Your task to perform on an android device: open app "Google Play services" (install if not already installed) Image 0: 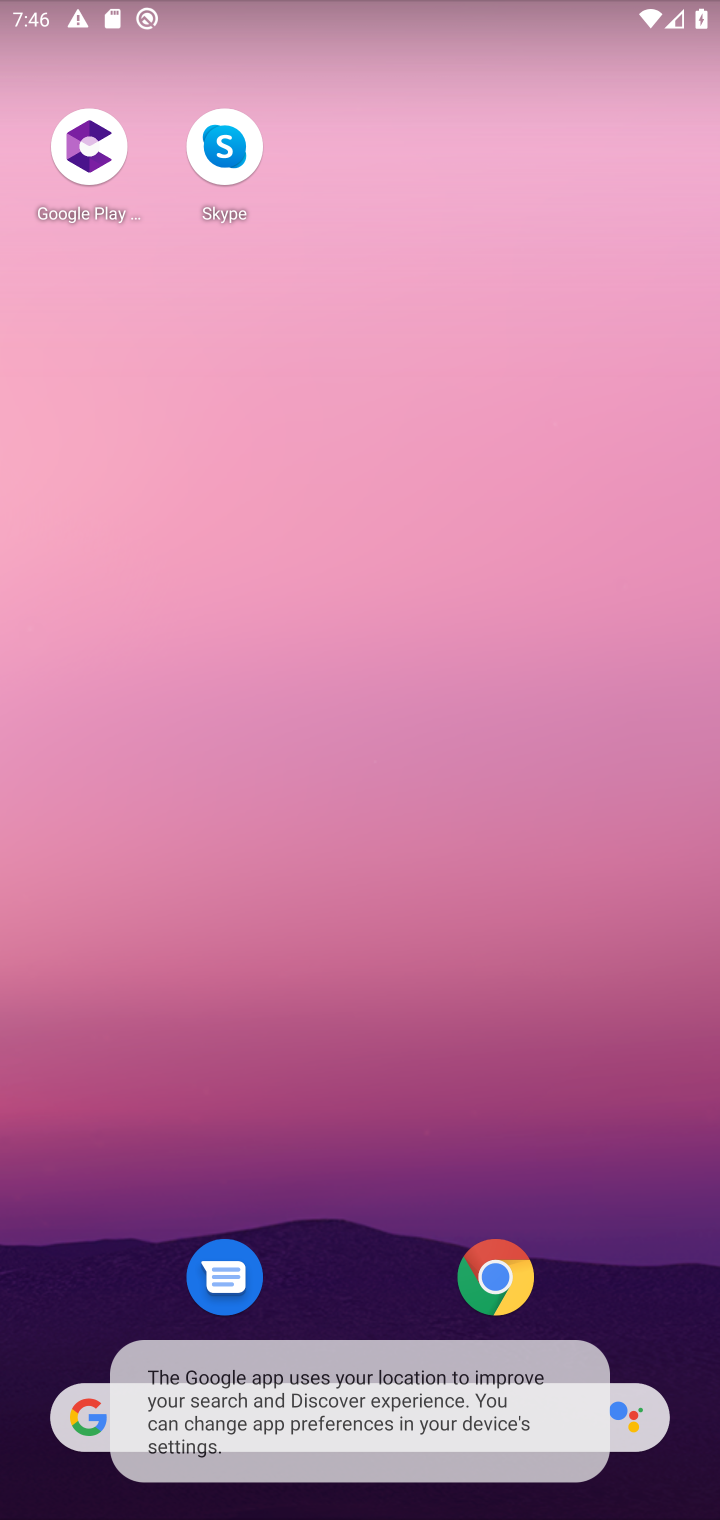
Step 0: drag from (544, 641) to (520, 166)
Your task to perform on an android device: open app "Google Play services" (install if not already installed) Image 1: 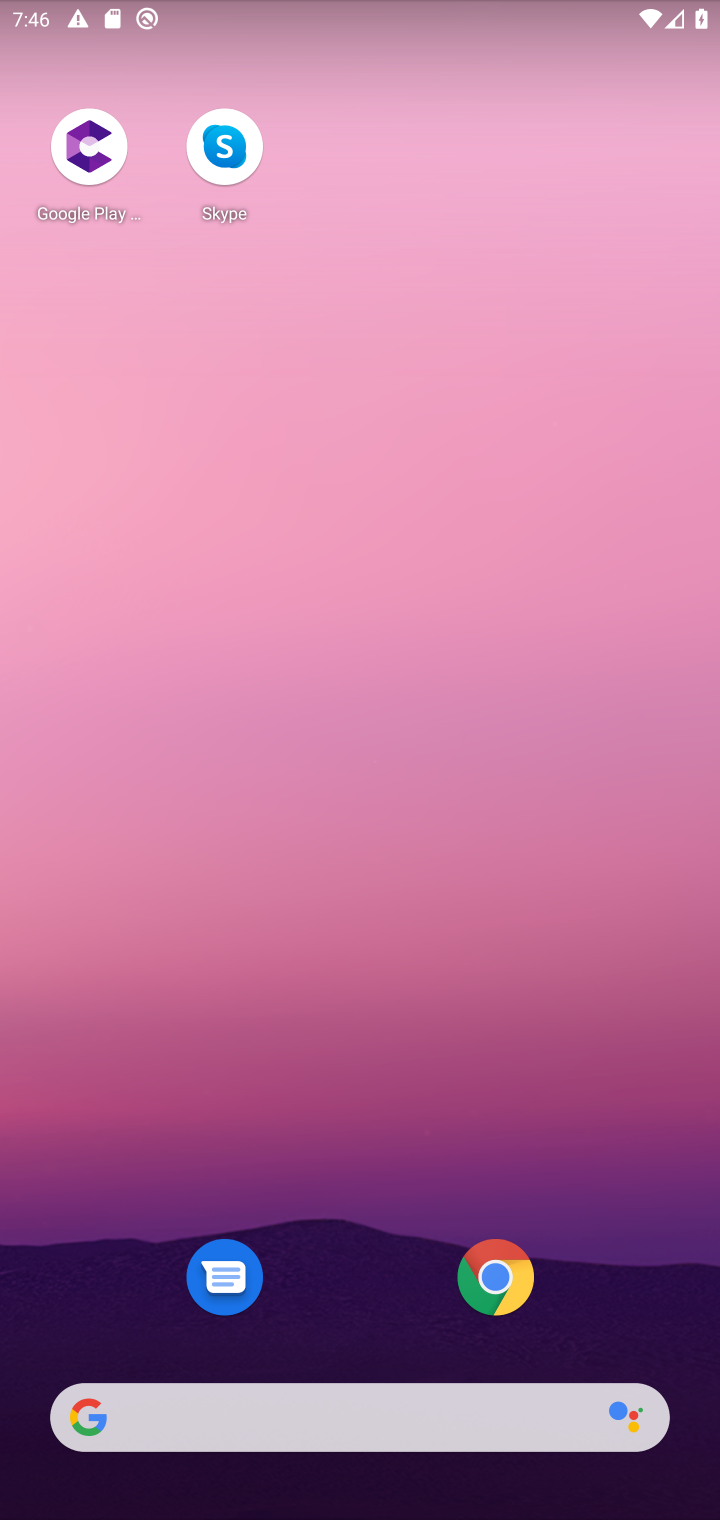
Step 1: drag from (558, 1242) to (456, 0)
Your task to perform on an android device: open app "Google Play services" (install if not already installed) Image 2: 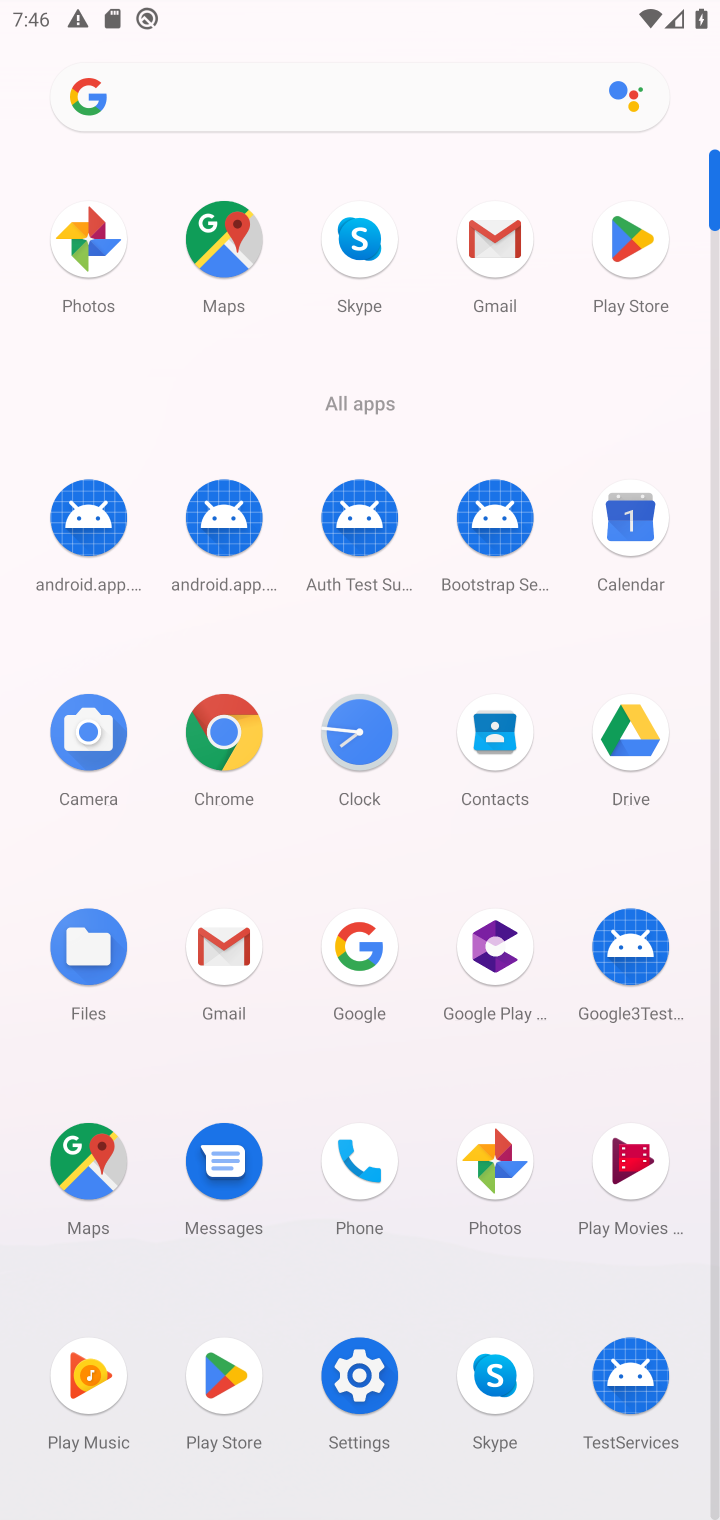
Step 2: drag from (455, 909) to (401, 760)
Your task to perform on an android device: open app "Google Play services" (install if not already installed) Image 3: 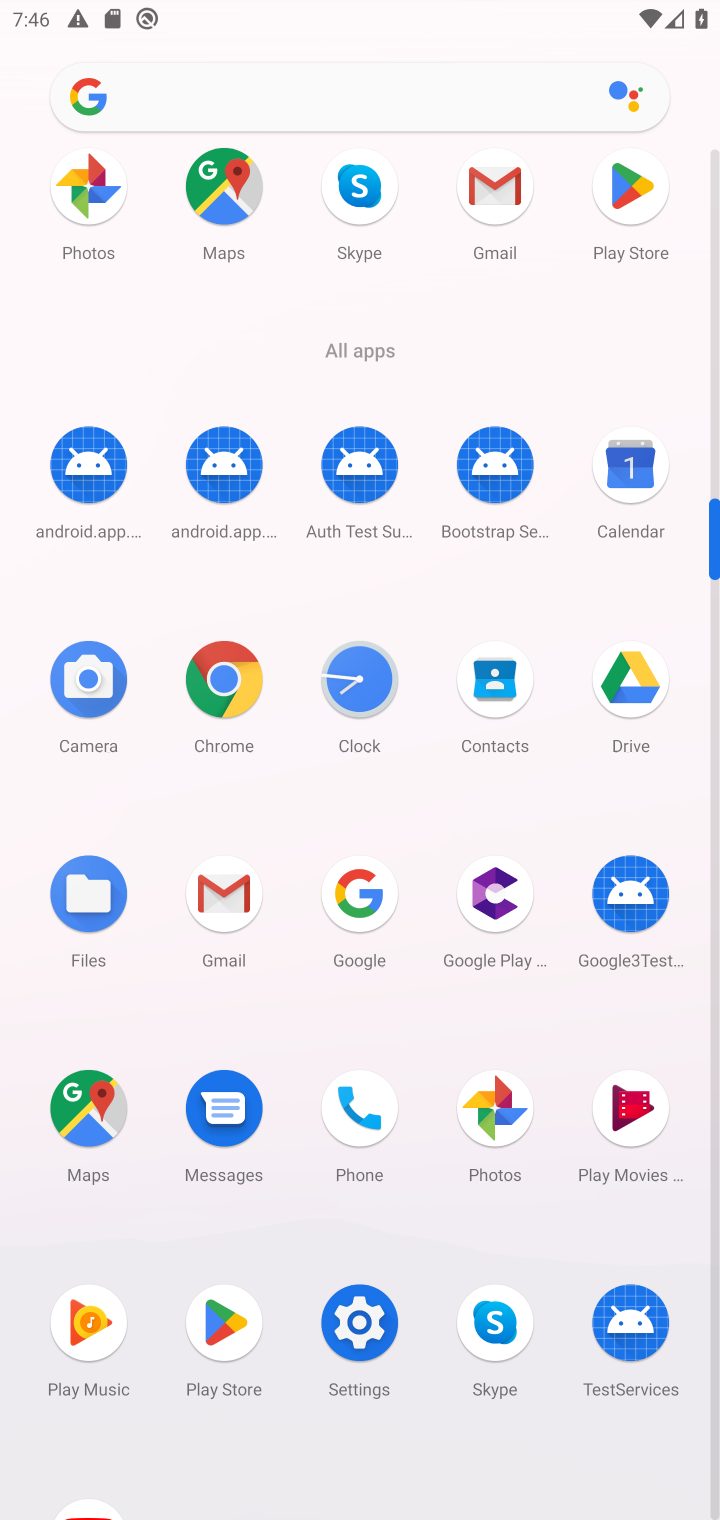
Step 3: click (234, 1342)
Your task to perform on an android device: open app "Google Play services" (install if not already installed) Image 4: 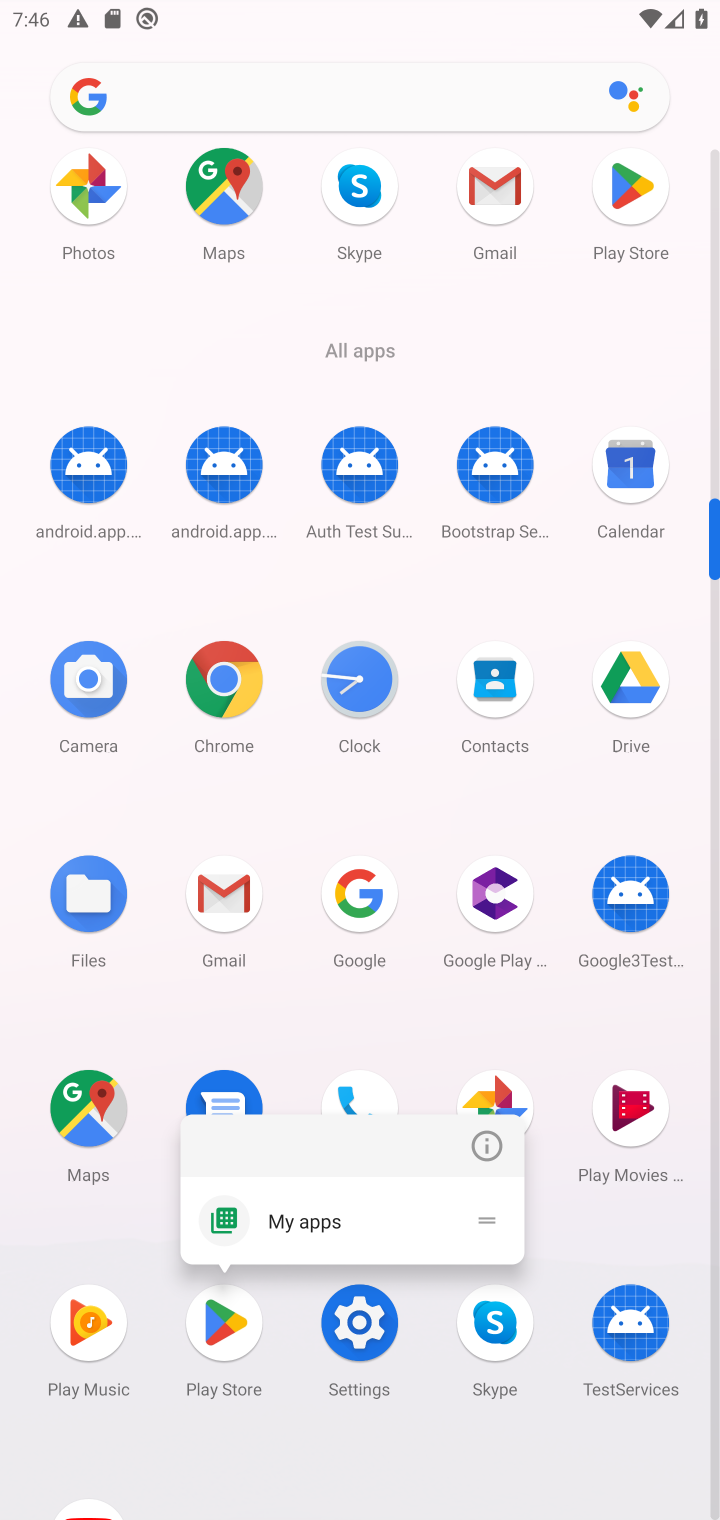
Step 4: click (174, 1358)
Your task to perform on an android device: open app "Google Play services" (install if not already installed) Image 5: 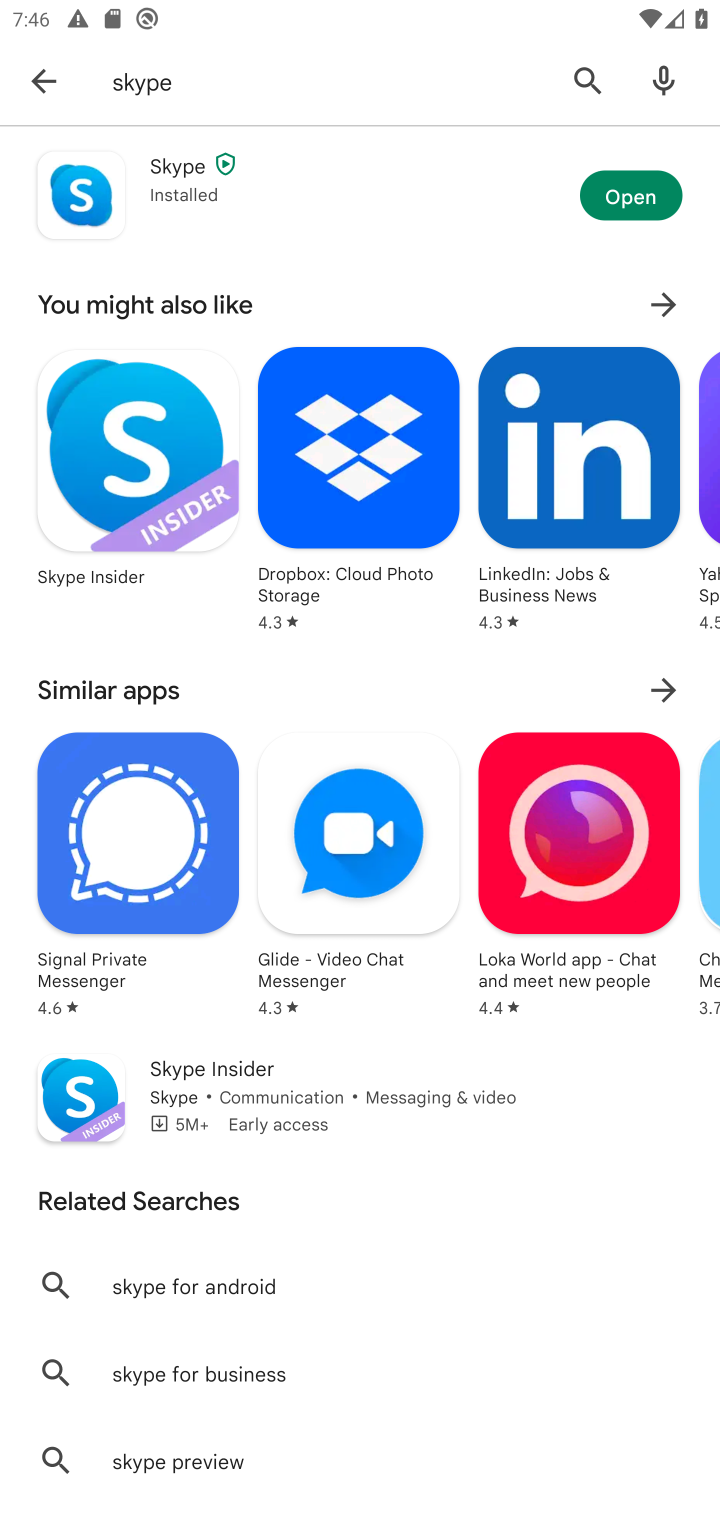
Step 5: click (279, 81)
Your task to perform on an android device: open app "Google Play services" (install if not already installed) Image 6: 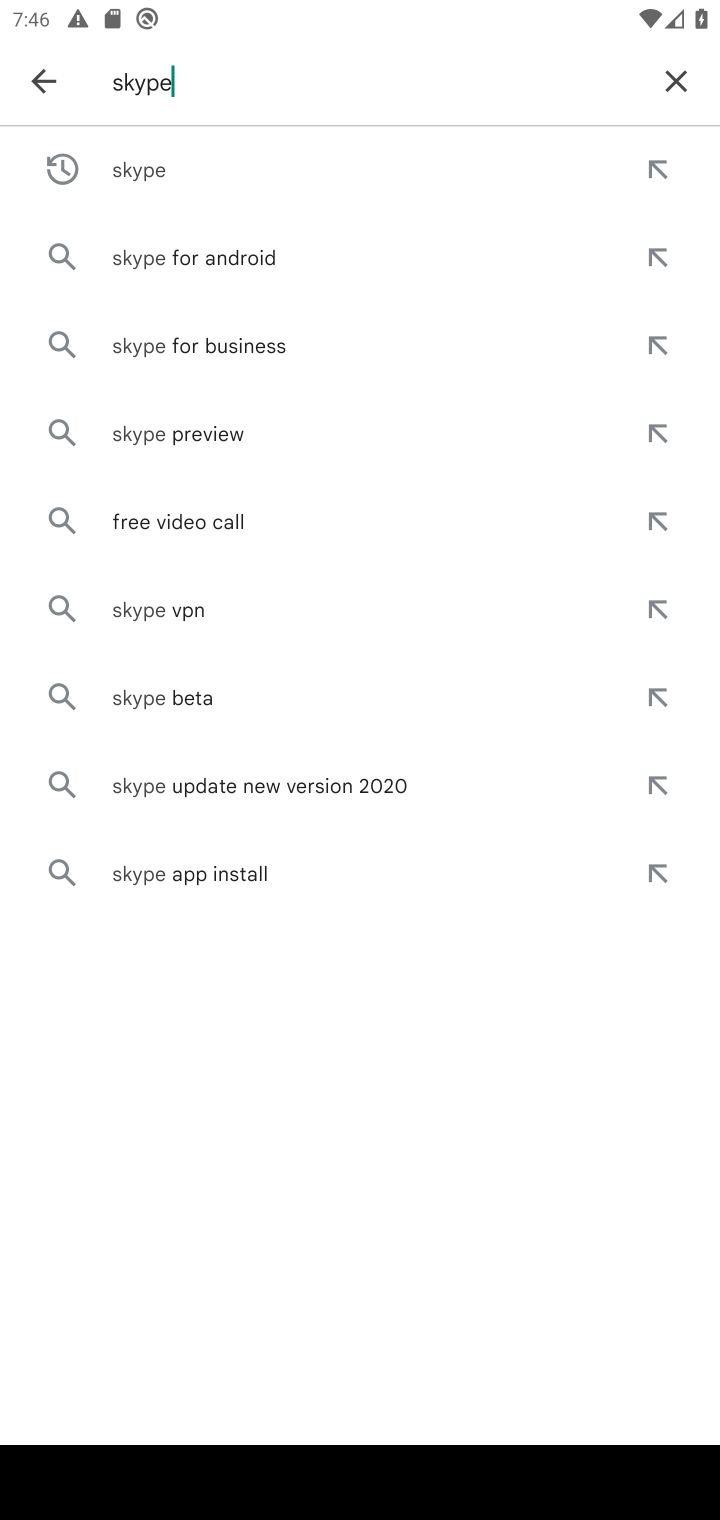
Step 6: click (680, 64)
Your task to perform on an android device: open app "Google Play services" (install if not already installed) Image 7: 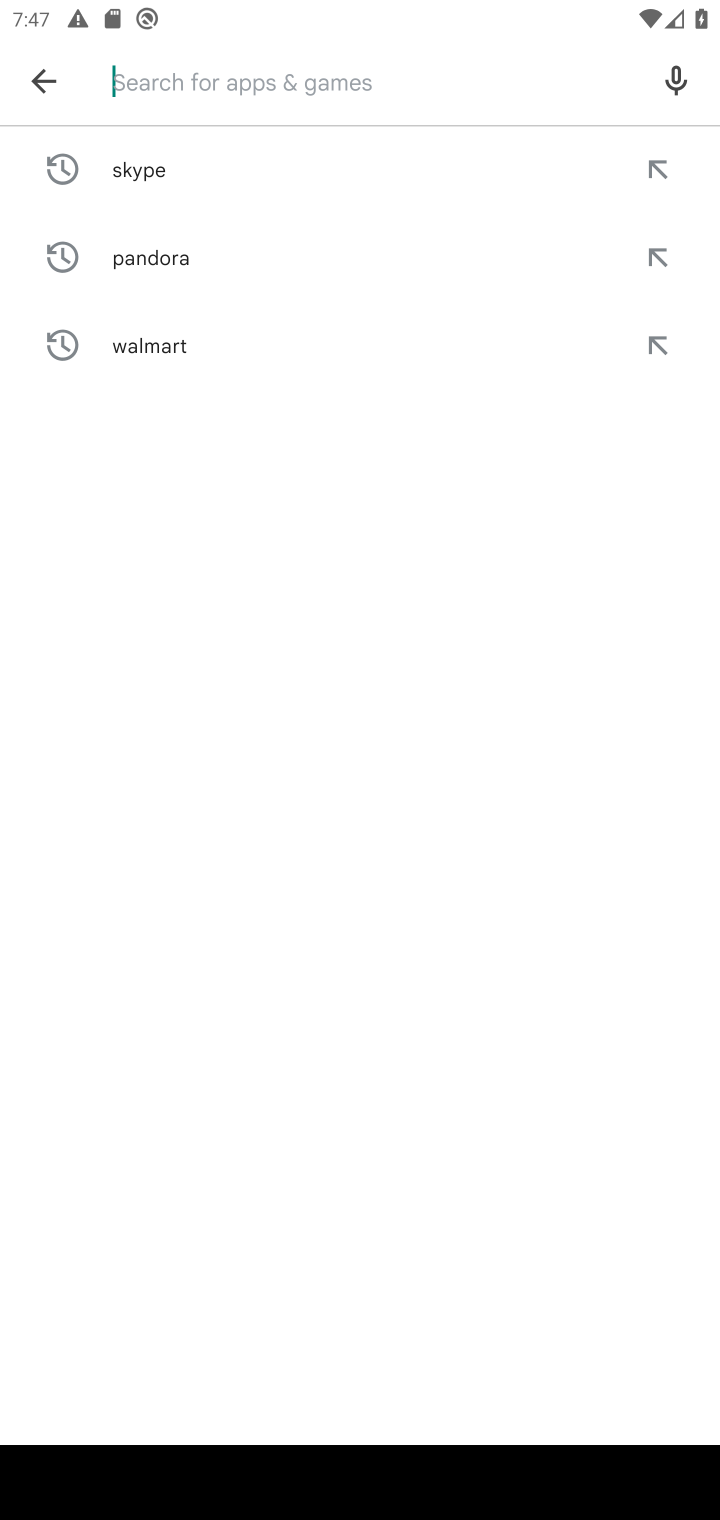
Step 7: type "google play service"
Your task to perform on an android device: open app "Google Play services" (install if not already installed) Image 8: 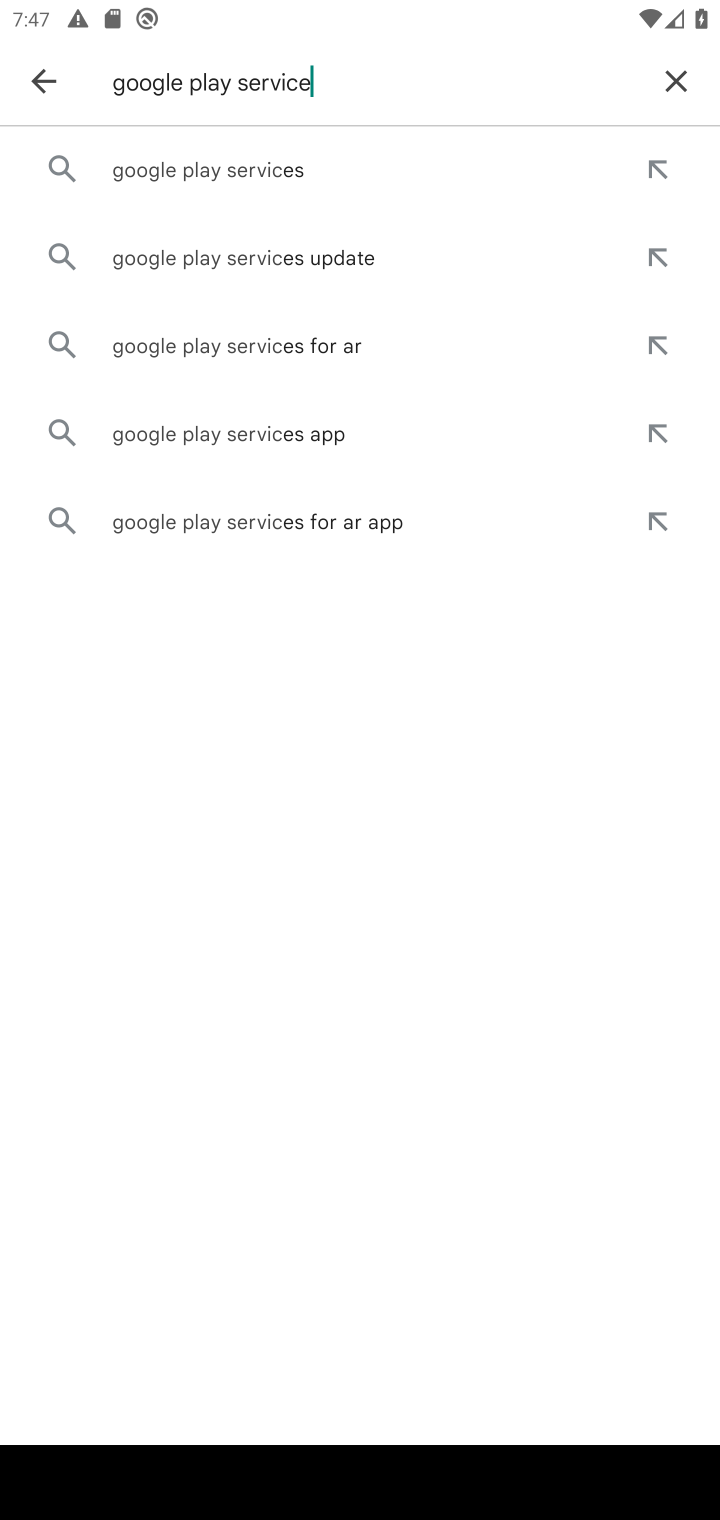
Step 8: type ""
Your task to perform on an android device: open app "Google Play services" (install if not already installed) Image 9: 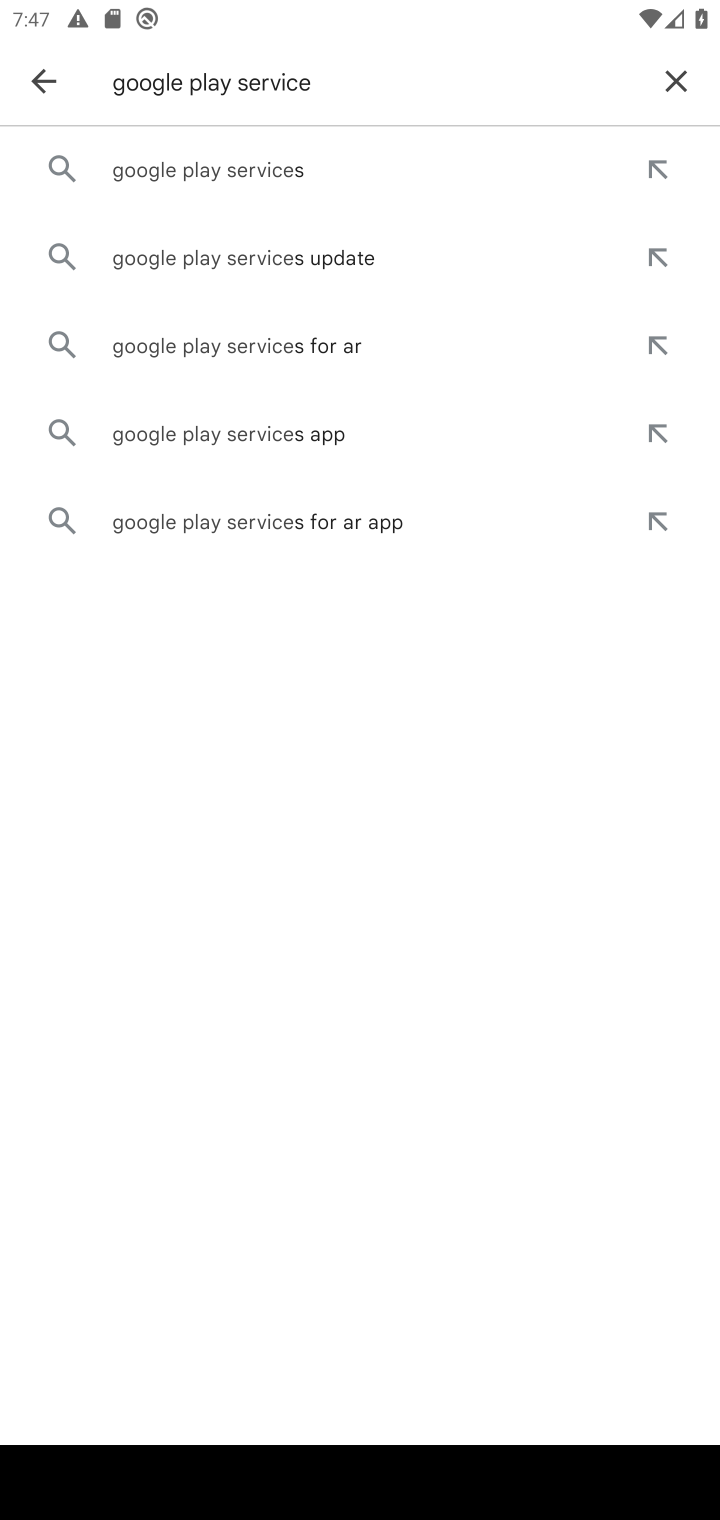
Step 9: click (320, 172)
Your task to perform on an android device: open app "Google Play services" (install if not already installed) Image 10: 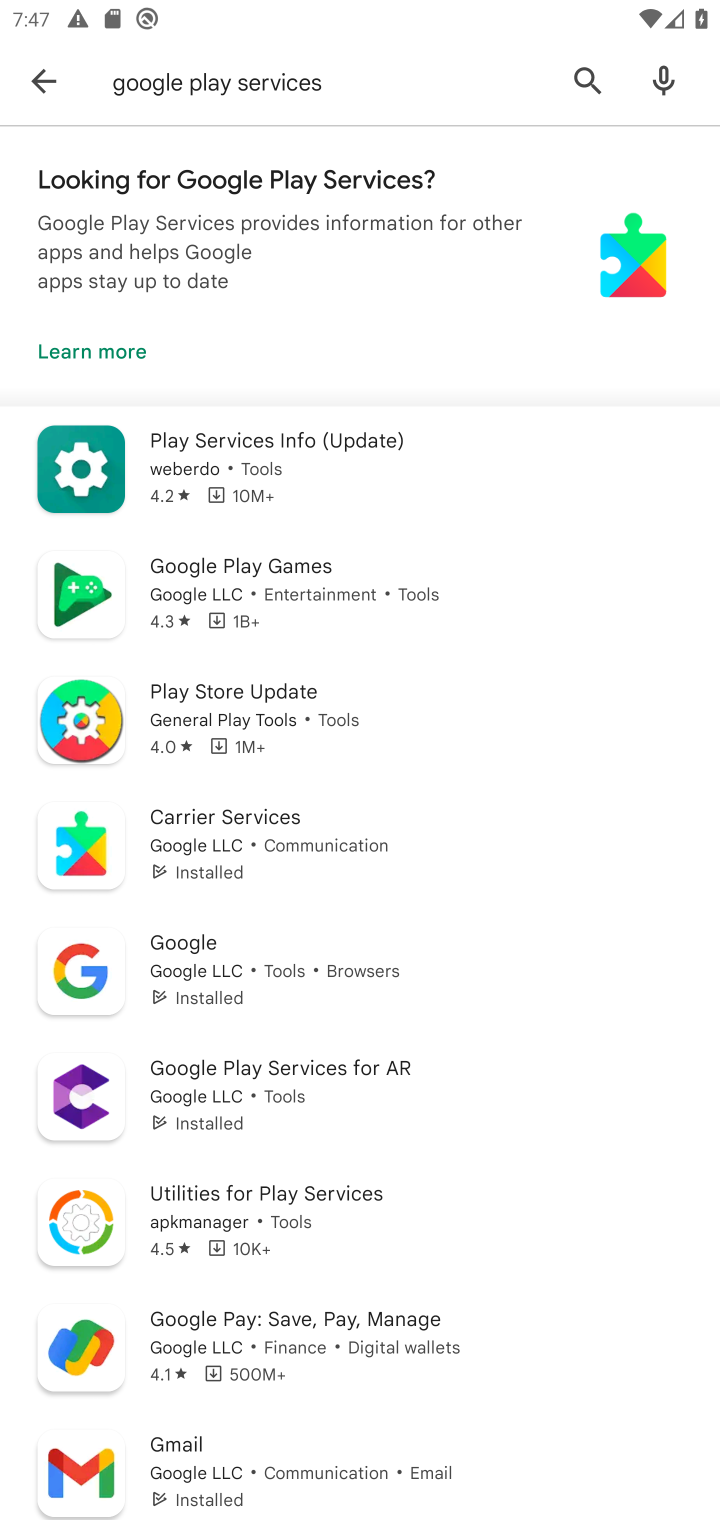
Step 10: click (643, 266)
Your task to perform on an android device: open app "Google Play services" (install if not already installed) Image 11: 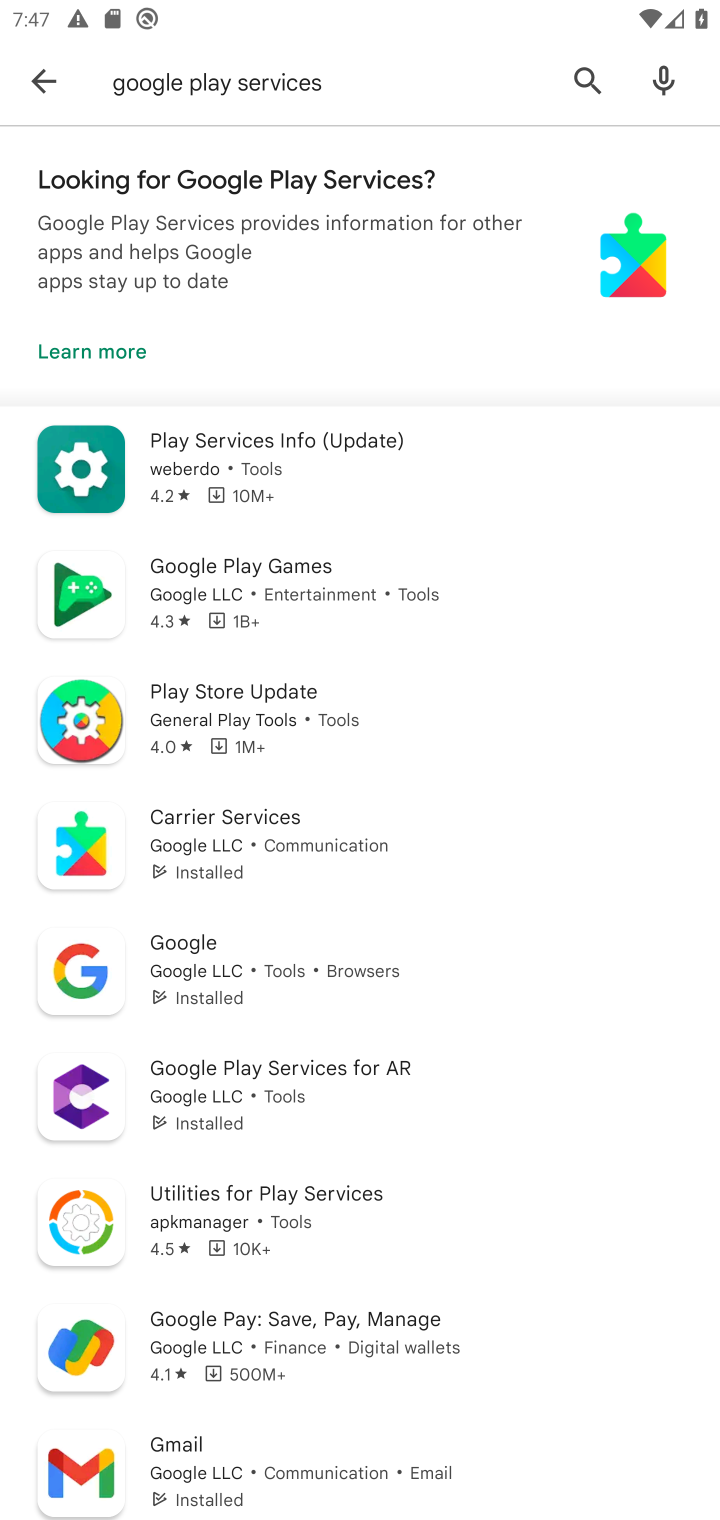
Step 11: click (606, 243)
Your task to perform on an android device: open app "Google Play services" (install if not already installed) Image 12: 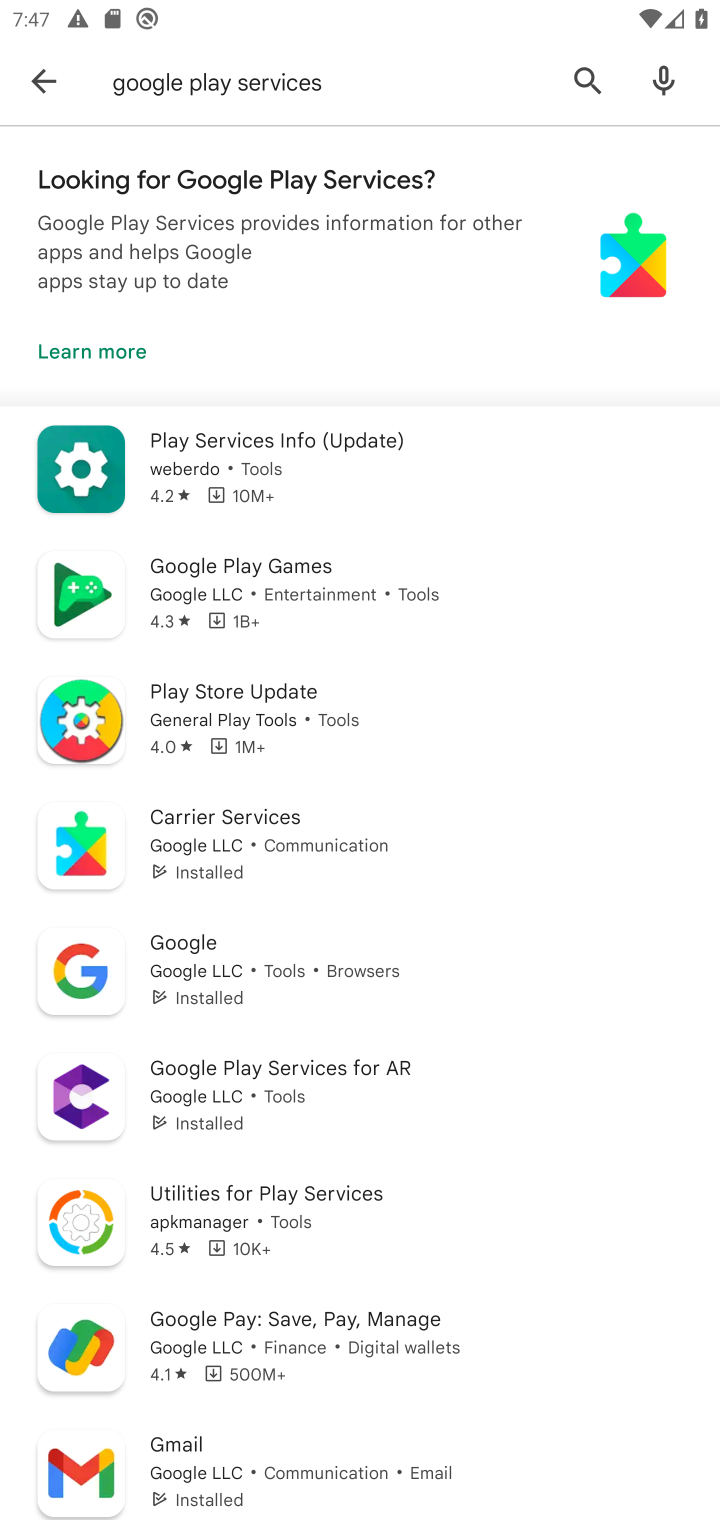
Step 12: click (623, 262)
Your task to perform on an android device: open app "Google Play services" (install if not already installed) Image 13: 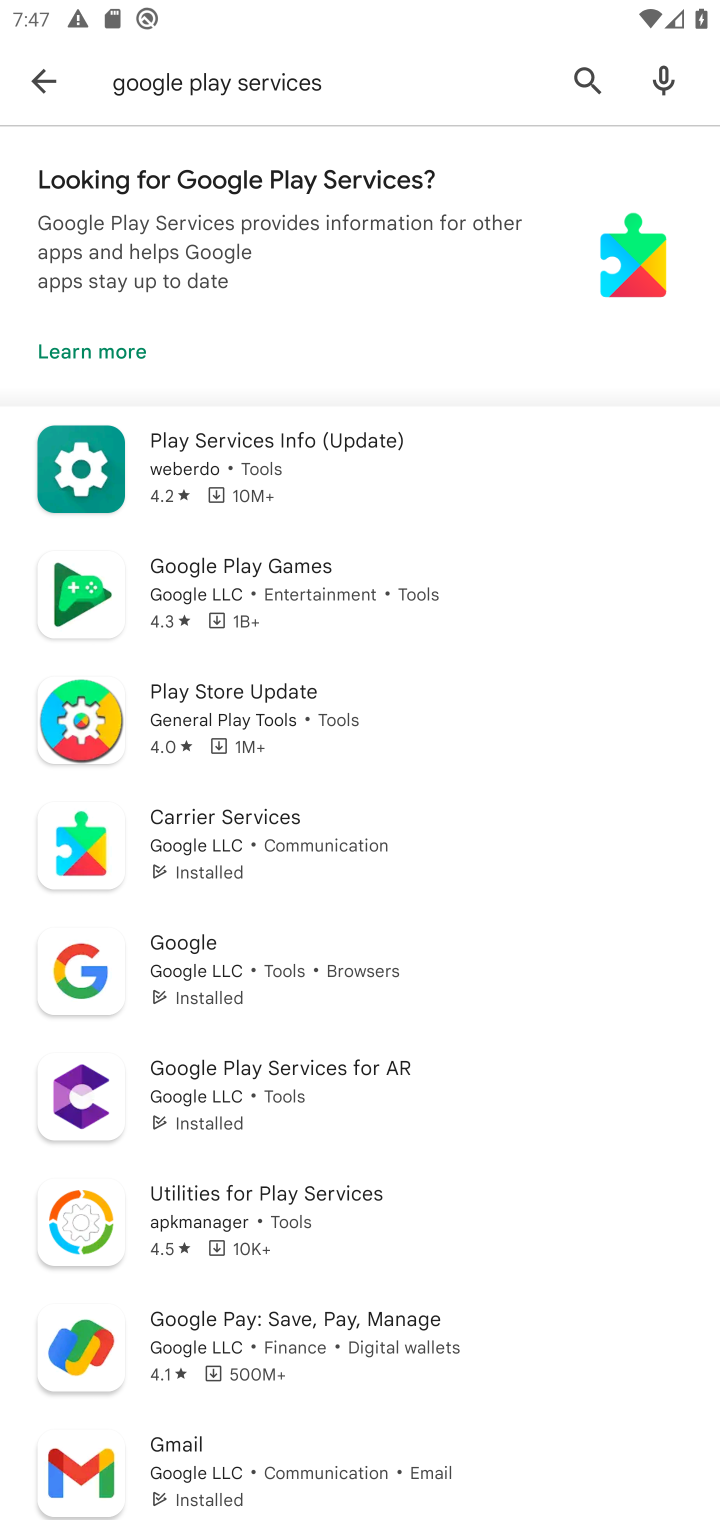
Step 13: task complete